Your task to perform on an android device: What's the weather? Image 0: 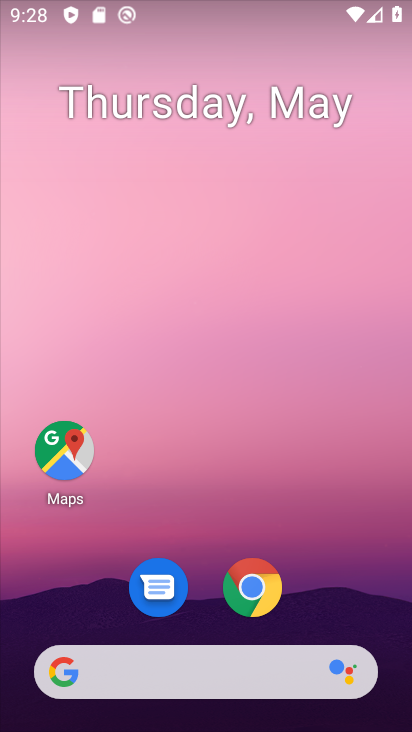
Step 0: click (152, 662)
Your task to perform on an android device: What's the weather? Image 1: 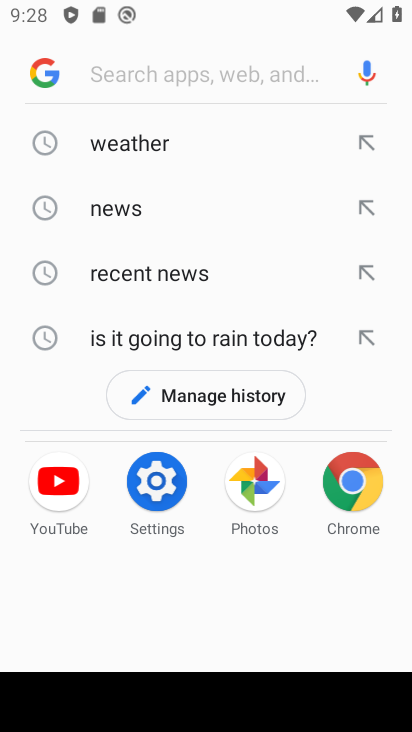
Step 1: click (158, 144)
Your task to perform on an android device: What's the weather? Image 2: 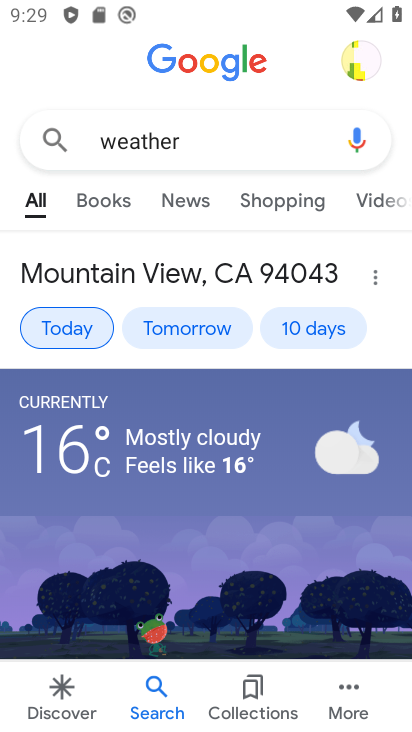
Step 2: task complete